Your task to perform on an android device: Go to Yahoo.com Image 0: 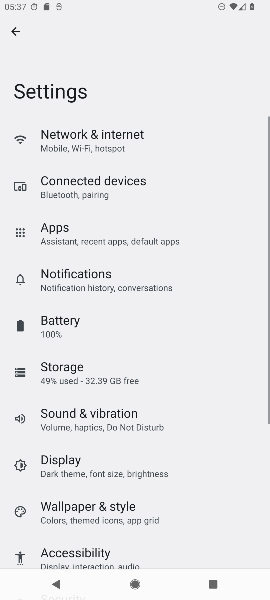
Step 0: press home button
Your task to perform on an android device: Go to Yahoo.com Image 1: 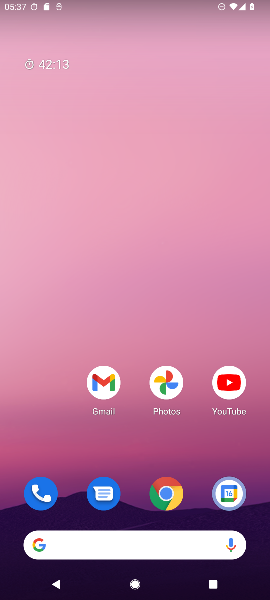
Step 1: drag from (61, 460) to (70, 162)
Your task to perform on an android device: Go to Yahoo.com Image 2: 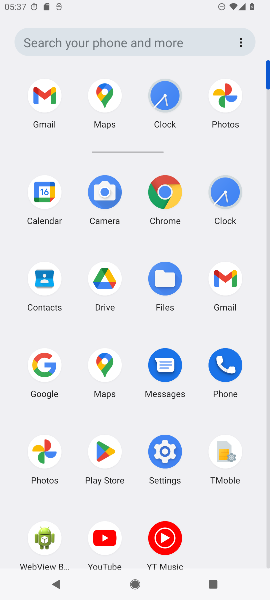
Step 2: click (168, 186)
Your task to perform on an android device: Go to Yahoo.com Image 3: 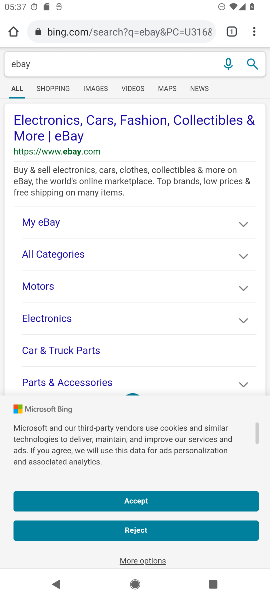
Step 3: click (167, 33)
Your task to perform on an android device: Go to Yahoo.com Image 4: 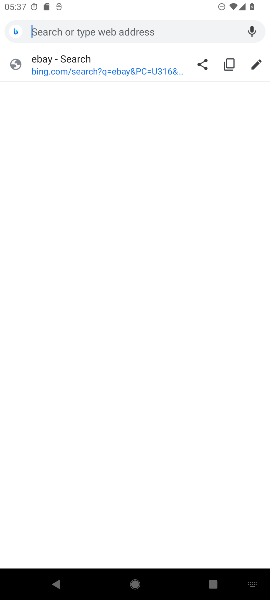
Step 4: type "yahoo.com"
Your task to perform on an android device: Go to Yahoo.com Image 5: 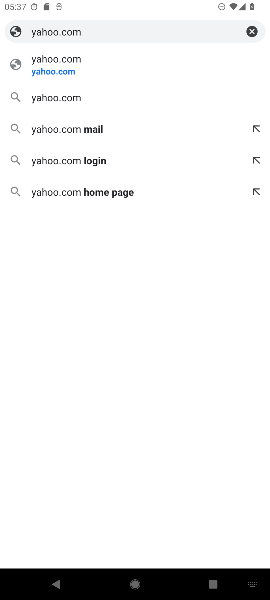
Step 5: click (84, 66)
Your task to perform on an android device: Go to Yahoo.com Image 6: 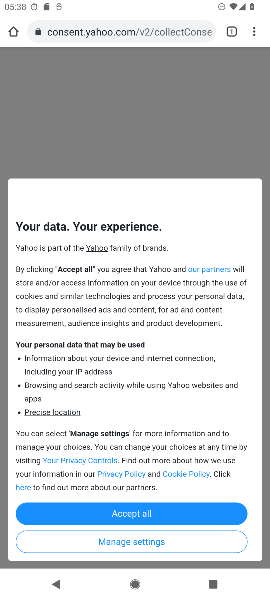
Step 6: task complete